Your task to perform on an android device: Go to privacy settings Image 0: 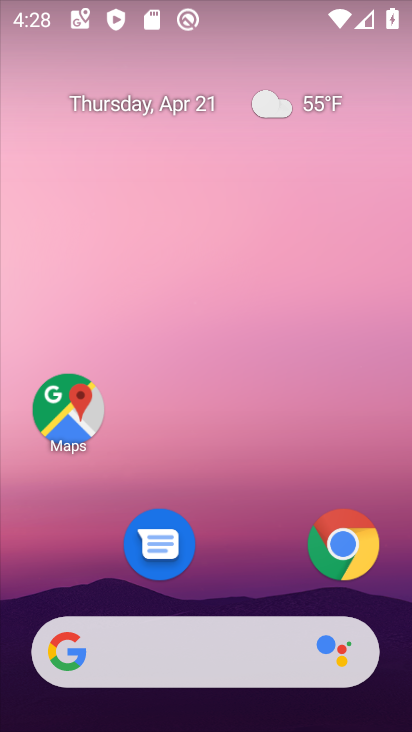
Step 0: click (197, 223)
Your task to perform on an android device: Go to privacy settings Image 1: 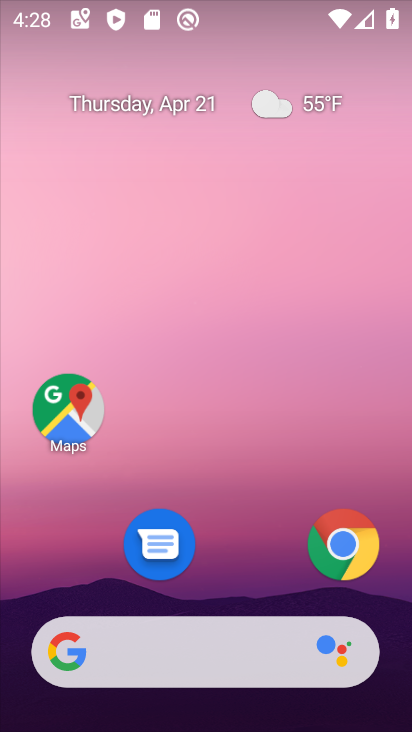
Step 1: press home button
Your task to perform on an android device: Go to privacy settings Image 2: 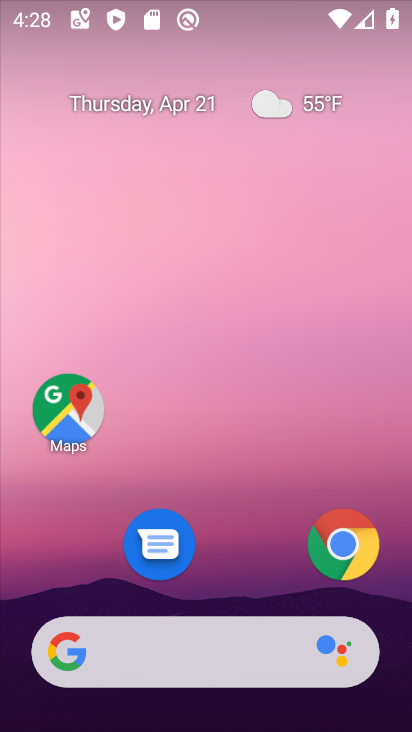
Step 2: drag from (259, 677) to (404, 213)
Your task to perform on an android device: Go to privacy settings Image 3: 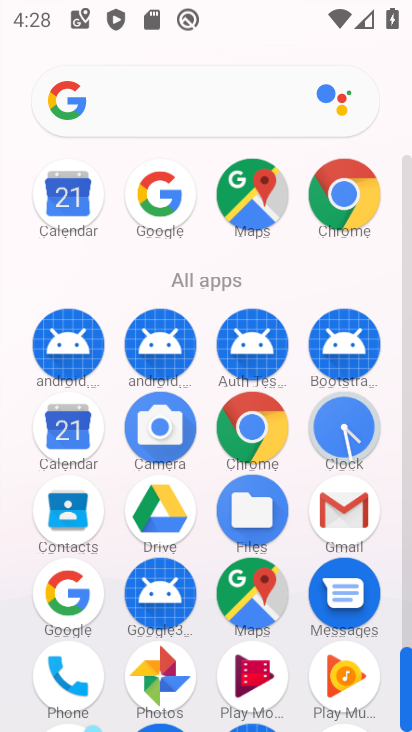
Step 3: drag from (201, 649) to (280, 171)
Your task to perform on an android device: Go to privacy settings Image 4: 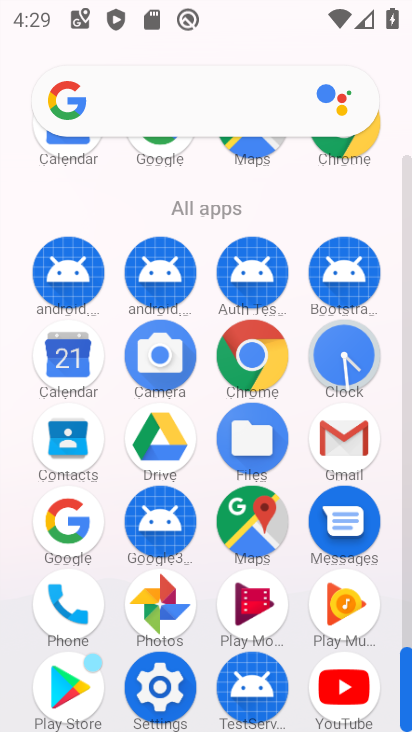
Step 4: click (156, 676)
Your task to perform on an android device: Go to privacy settings Image 5: 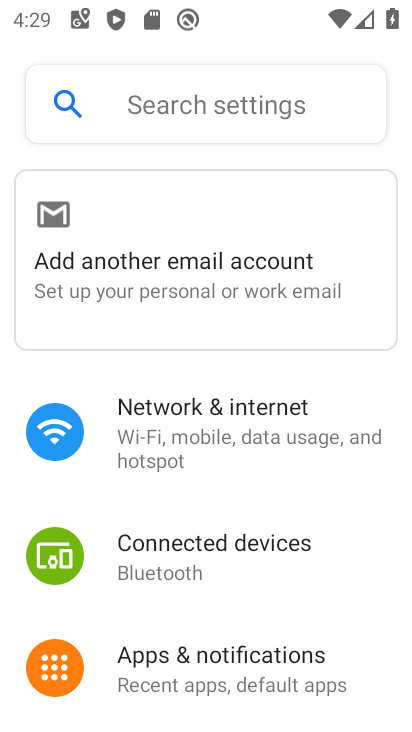
Step 5: drag from (210, 637) to (279, 180)
Your task to perform on an android device: Go to privacy settings Image 6: 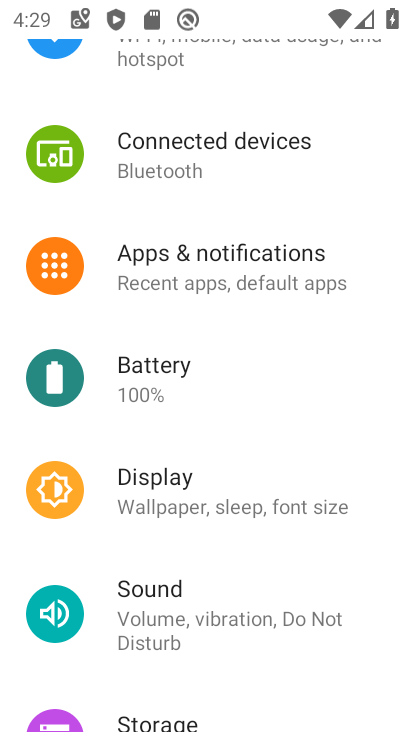
Step 6: drag from (197, 620) to (240, 202)
Your task to perform on an android device: Go to privacy settings Image 7: 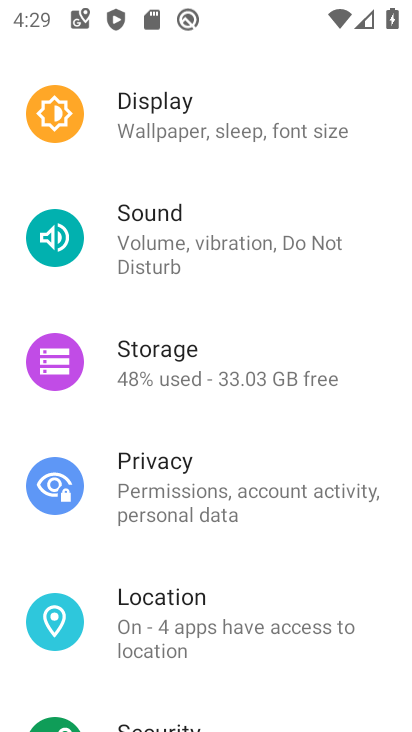
Step 7: click (191, 470)
Your task to perform on an android device: Go to privacy settings Image 8: 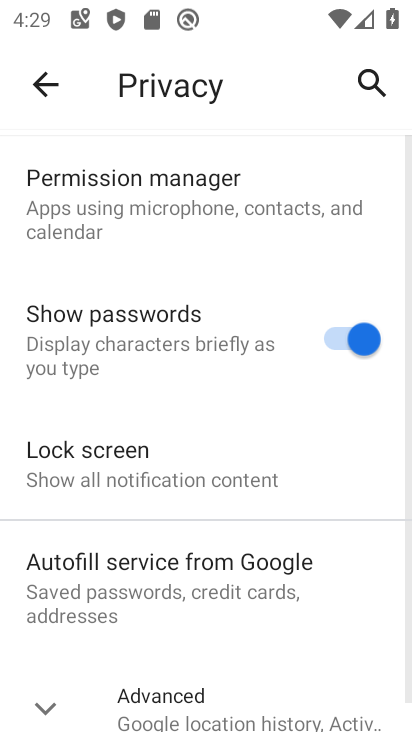
Step 8: task complete